Your task to perform on an android device: uninstall "Microsoft Excel" Image 0: 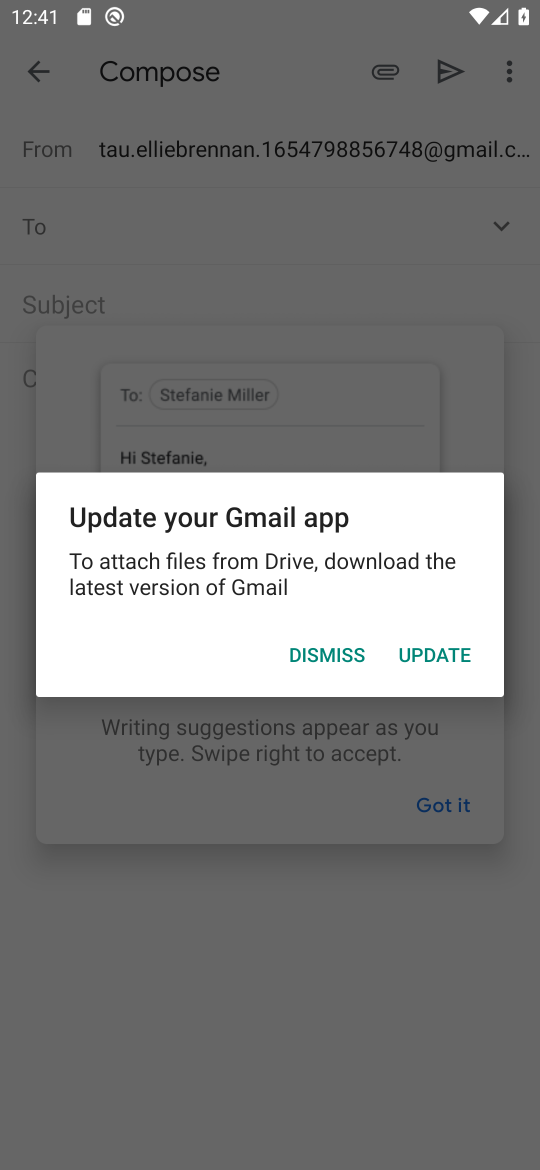
Step 0: press home button
Your task to perform on an android device: uninstall "Microsoft Excel" Image 1: 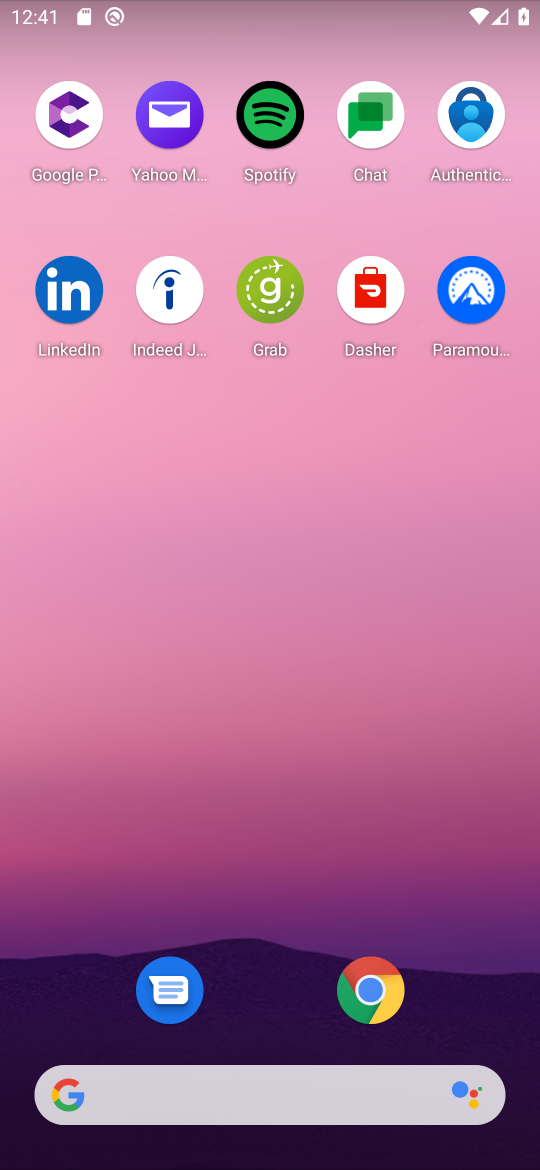
Step 1: drag from (296, 868) to (358, 110)
Your task to perform on an android device: uninstall "Microsoft Excel" Image 2: 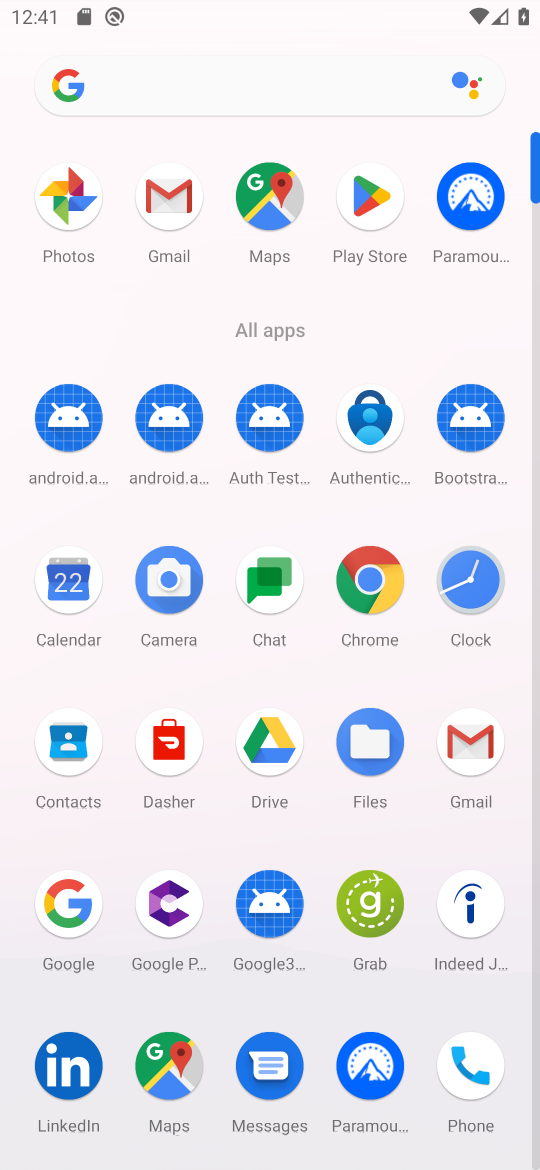
Step 2: click (365, 219)
Your task to perform on an android device: uninstall "Microsoft Excel" Image 3: 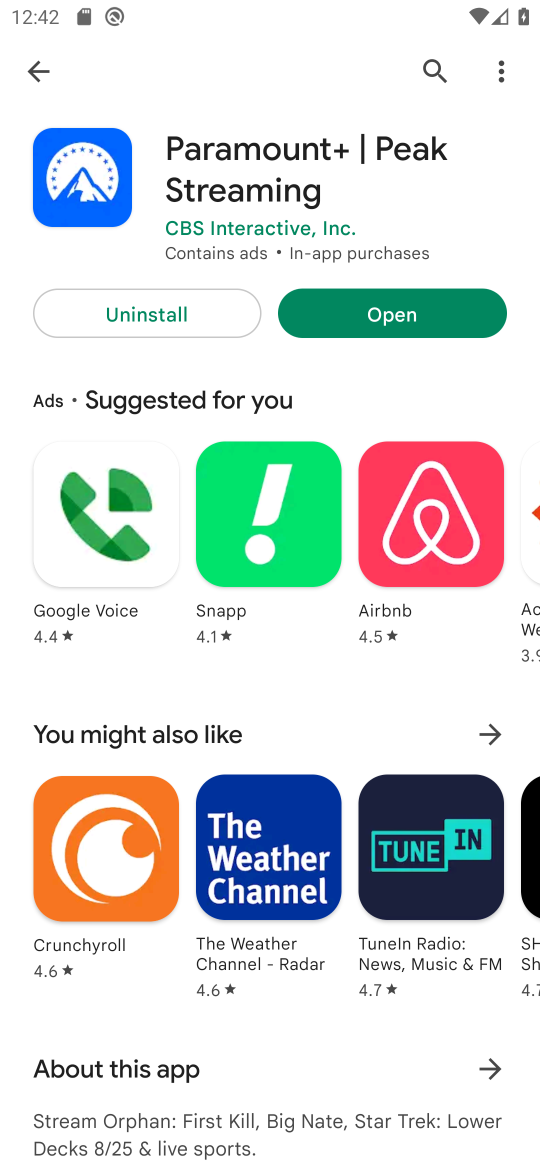
Step 3: click (446, 73)
Your task to perform on an android device: uninstall "Microsoft Excel" Image 4: 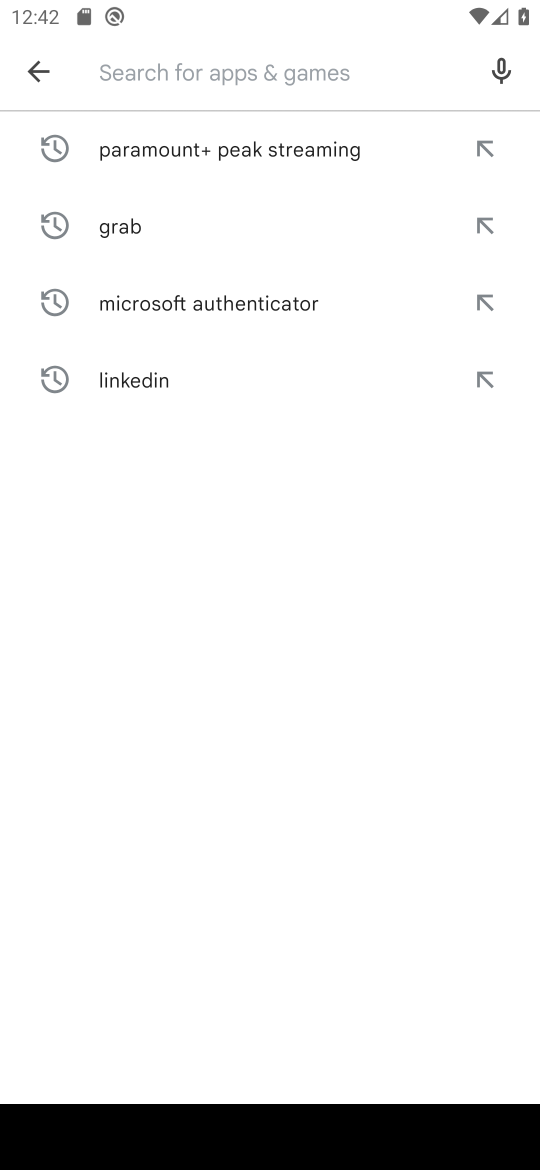
Step 4: type "Microsoft Excel"
Your task to perform on an android device: uninstall "Microsoft Excel" Image 5: 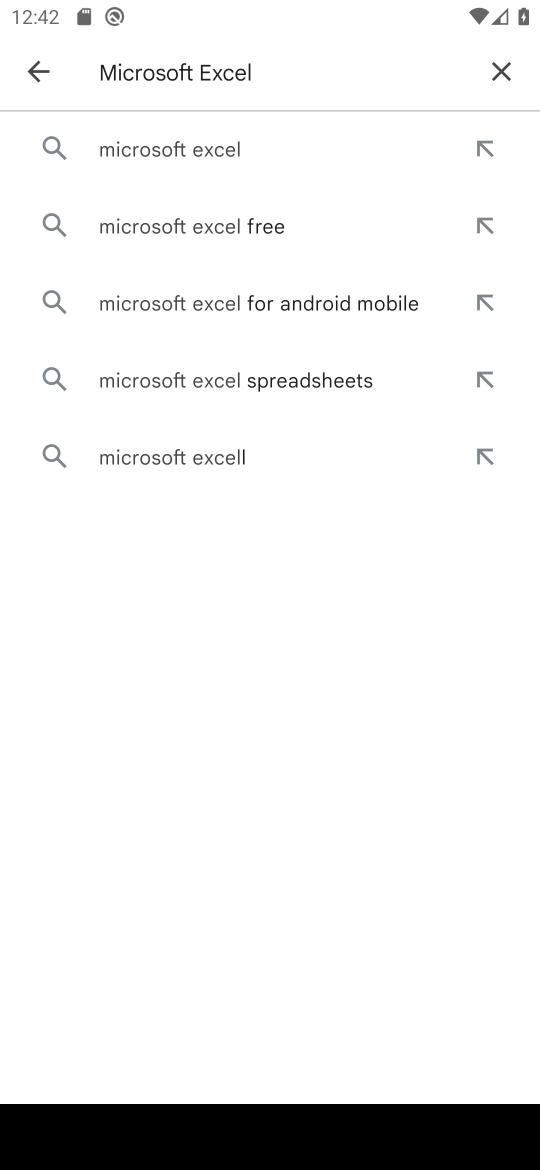
Step 5: click (247, 148)
Your task to perform on an android device: uninstall "Microsoft Excel" Image 6: 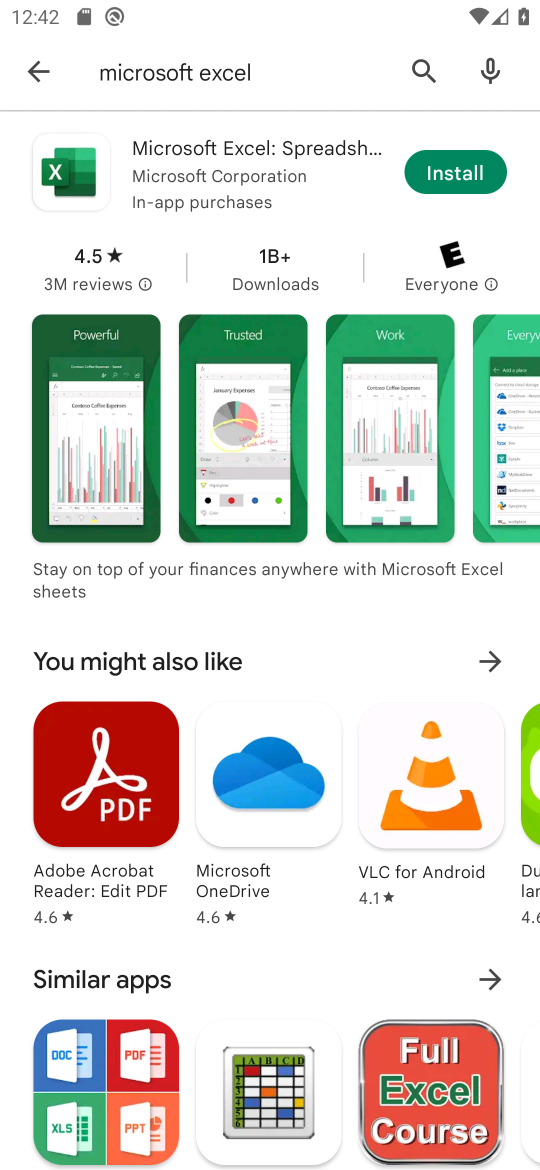
Step 6: task complete